Your task to perform on an android device: add a label to a message in the gmail app Image 0: 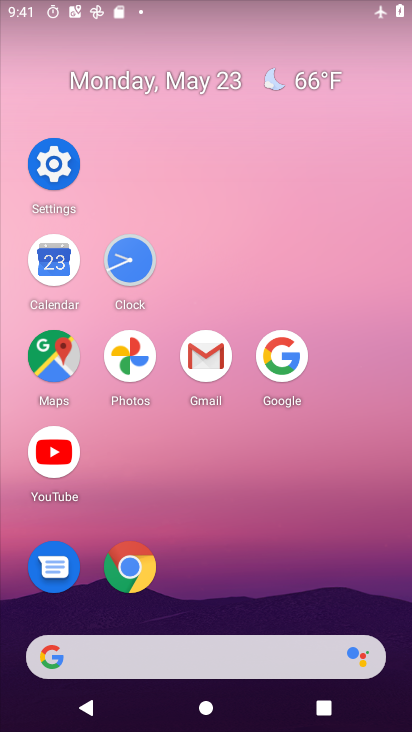
Step 0: click (291, 307)
Your task to perform on an android device: add a label to a message in the gmail app Image 1: 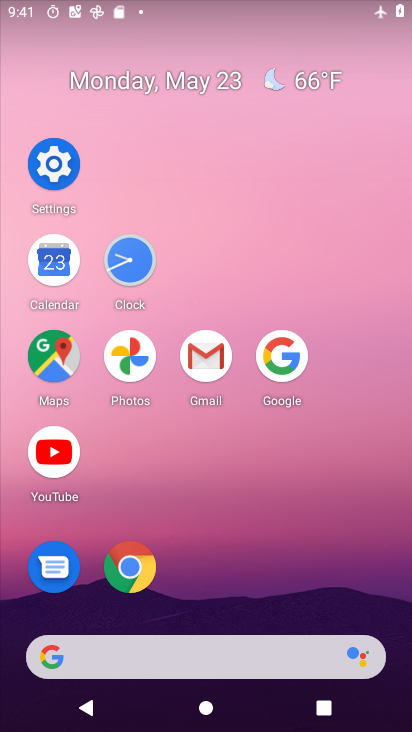
Step 1: click (226, 362)
Your task to perform on an android device: add a label to a message in the gmail app Image 2: 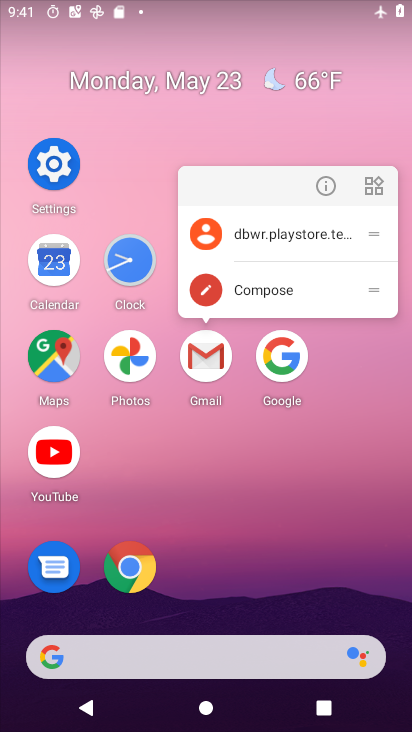
Step 2: click (226, 362)
Your task to perform on an android device: add a label to a message in the gmail app Image 3: 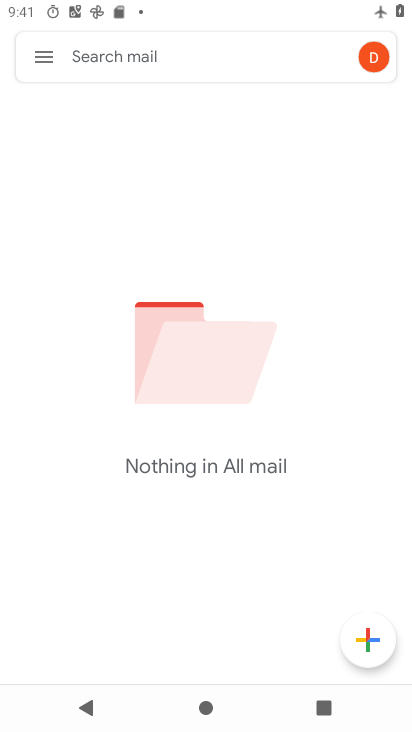
Step 3: click (64, 53)
Your task to perform on an android device: add a label to a message in the gmail app Image 4: 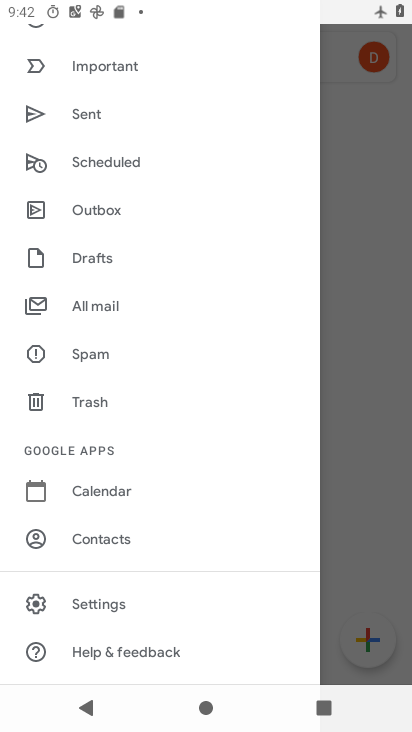
Step 4: click (109, 312)
Your task to perform on an android device: add a label to a message in the gmail app Image 5: 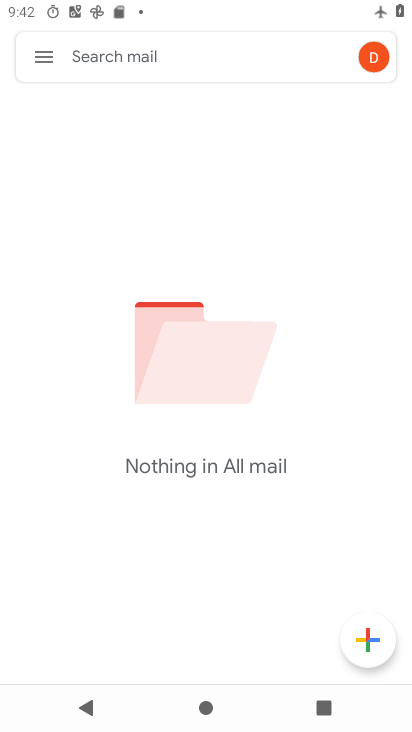
Step 5: task complete